Your task to perform on an android device: check android version Image 0: 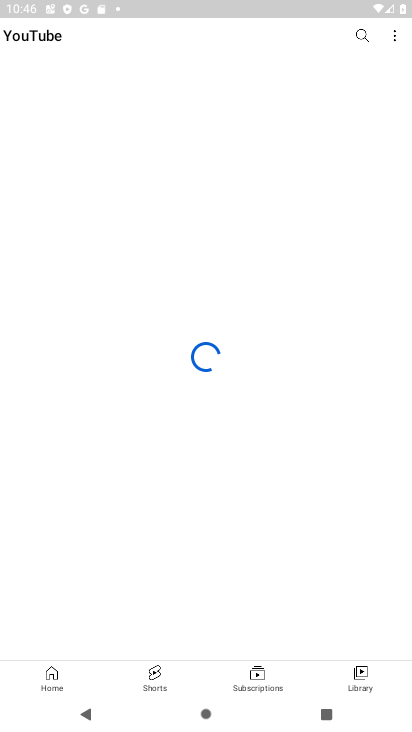
Step 0: press home button
Your task to perform on an android device: check android version Image 1: 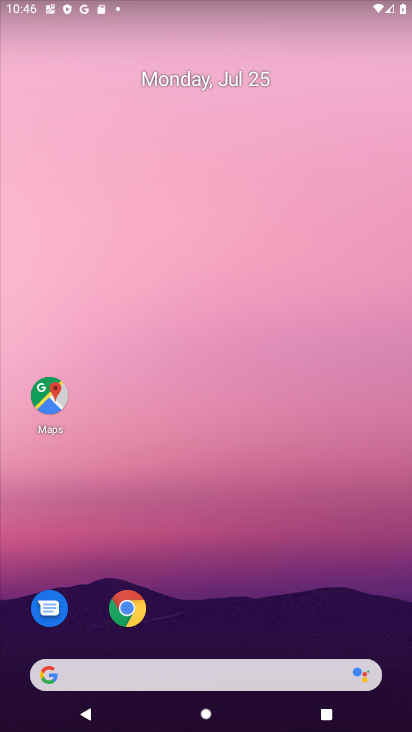
Step 1: drag from (216, 646) to (216, 244)
Your task to perform on an android device: check android version Image 2: 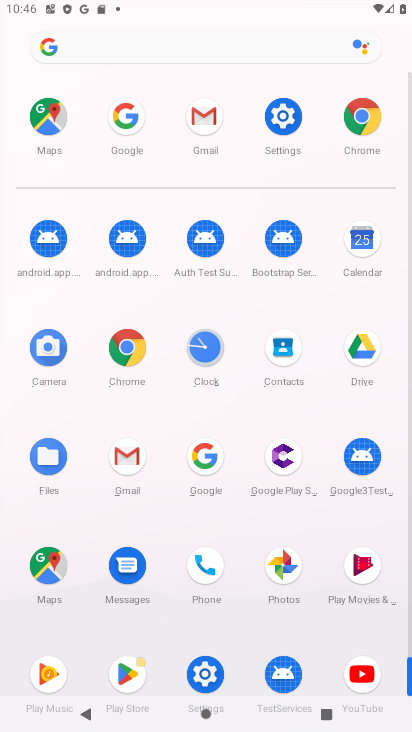
Step 2: click (276, 120)
Your task to perform on an android device: check android version Image 3: 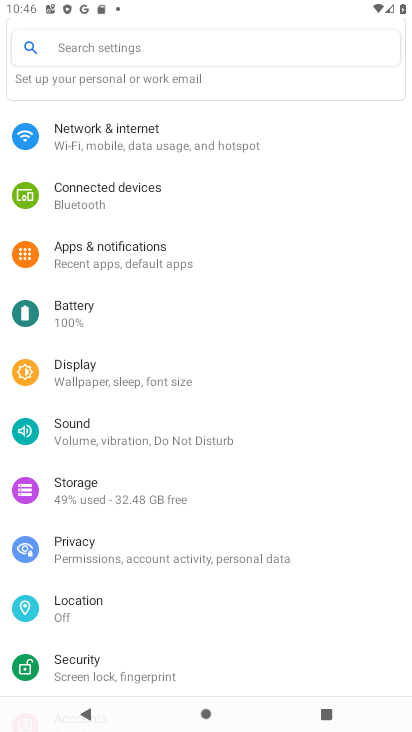
Step 3: drag from (192, 490) to (166, 87)
Your task to perform on an android device: check android version Image 4: 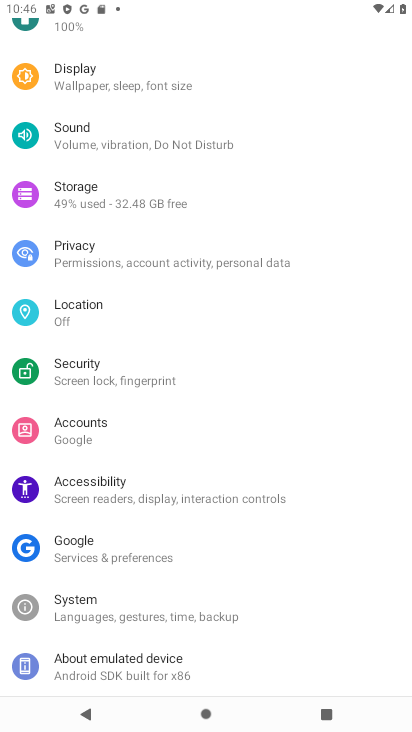
Step 4: drag from (180, 476) to (177, 191)
Your task to perform on an android device: check android version Image 5: 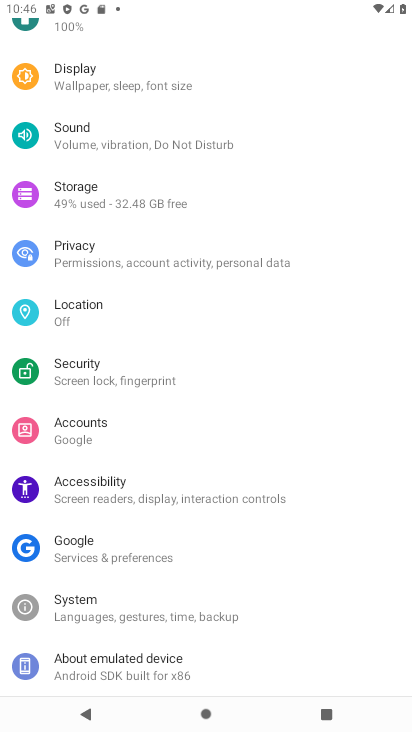
Step 5: drag from (208, 396) to (219, 89)
Your task to perform on an android device: check android version Image 6: 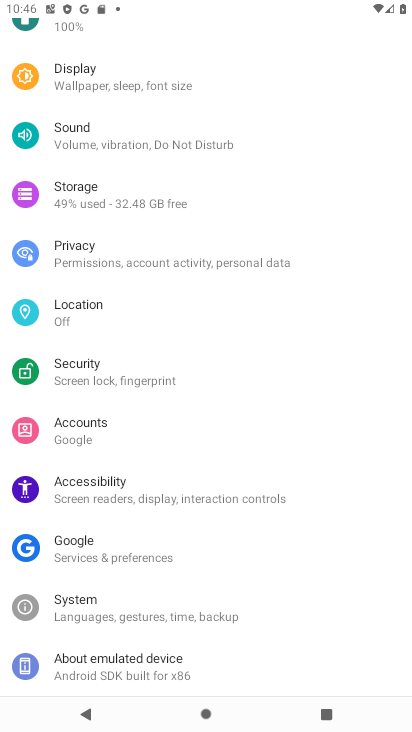
Step 6: click (205, 664)
Your task to perform on an android device: check android version Image 7: 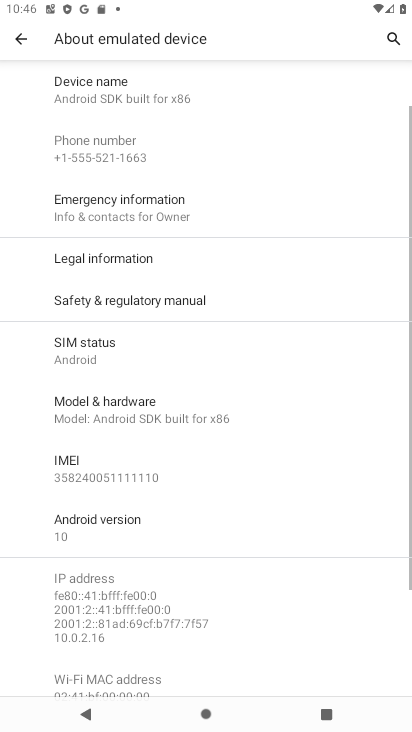
Step 7: click (105, 540)
Your task to perform on an android device: check android version Image 8: 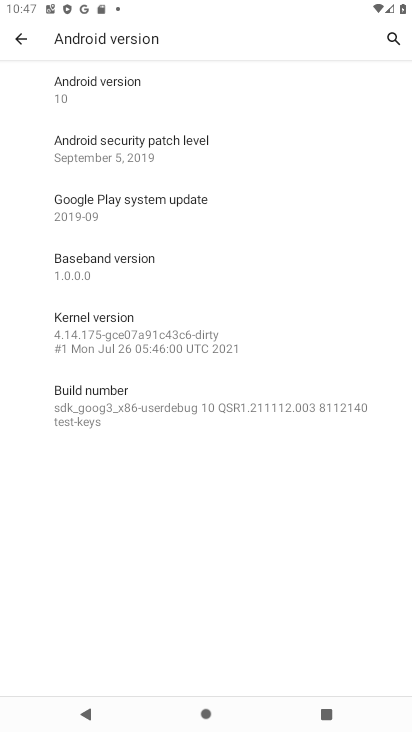
Step 8: task complete